Your task to perform on an android device: change your default location settings in chrome Image 0: 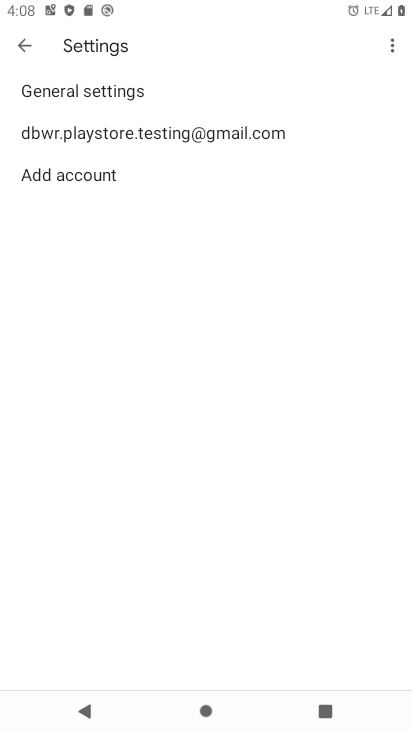
Step 0: press home button
Your task to perform on an android device: change your default location settings in chrome Image 1: 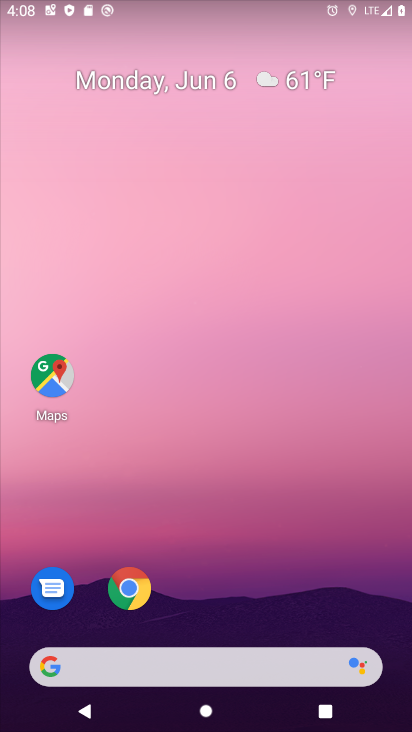
Step 1: click (202, 244)
Your task to perform on an android device: change your default location settings in chrome Image 2: 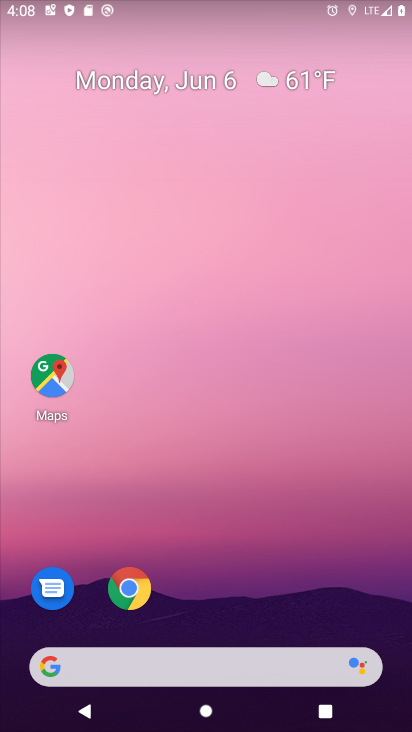
Step 2: click (142, 601)
Your task to perform on an android device: change your default location settings in chrome Image 3: 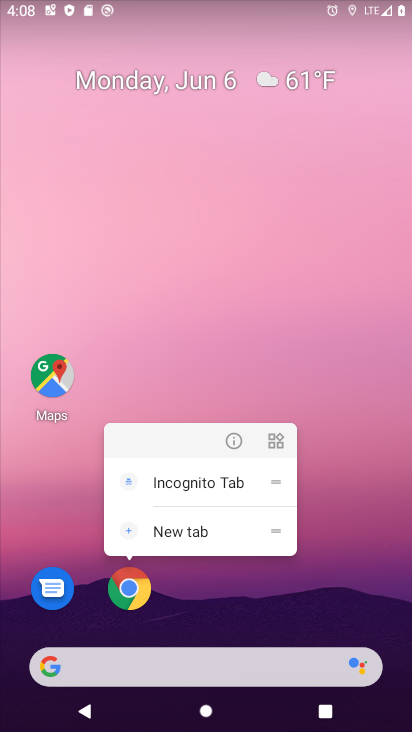
Step 3: click (142, 601)
Your task to perform on an android device: change your default location settings in chrome Image 4: 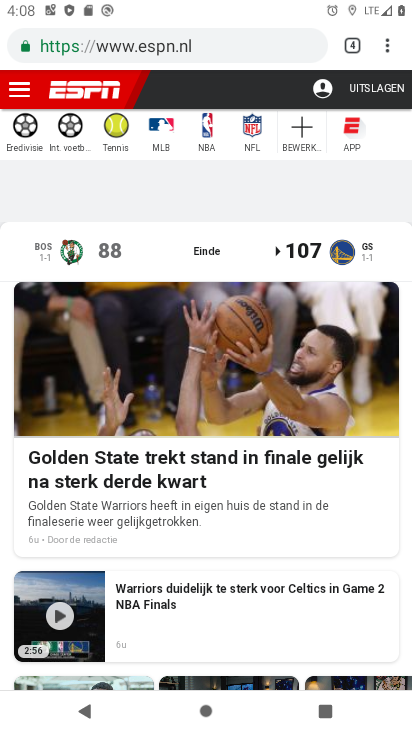
Step 4: click (392, 44)
Your task to perform on an android device: change your default location settings in chrome Image 5: 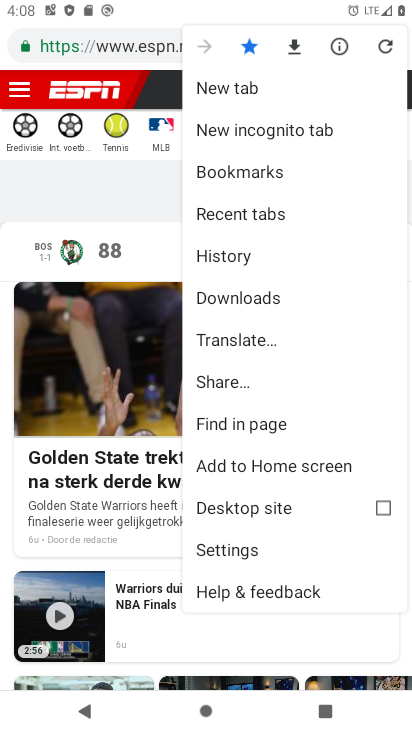
Step 5: click (246, 556)
Your task to perform on an android device: change your default location settings in chrome Image 6: 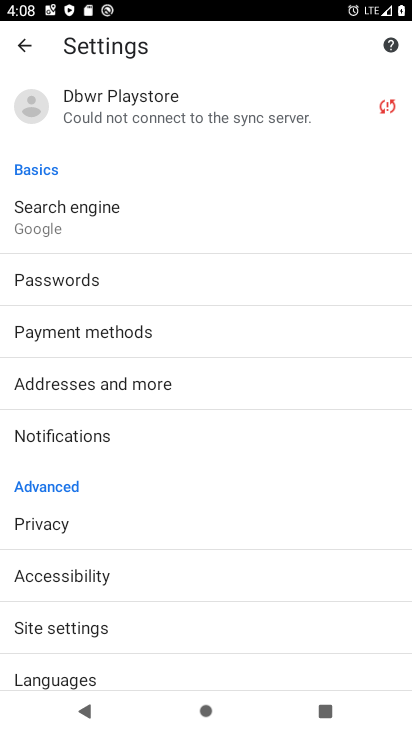
Step 6: click (138, 622)
Your task to perform on an android device: change your default location settings in chrome Image 7: 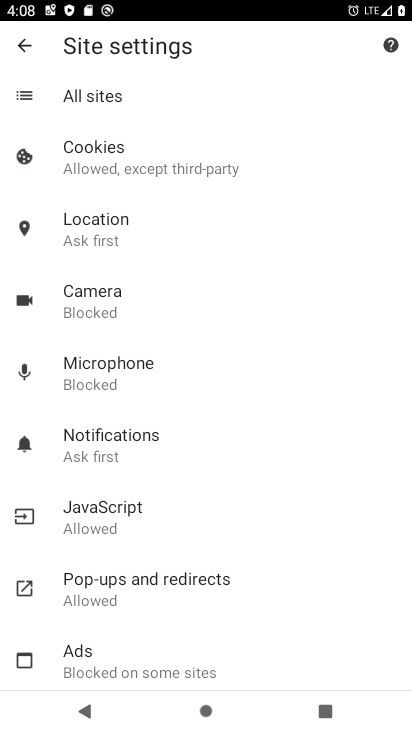
Step 7: click (209, 225)
Your task to perform on an android device: change your default location settings in chrome Image 8: 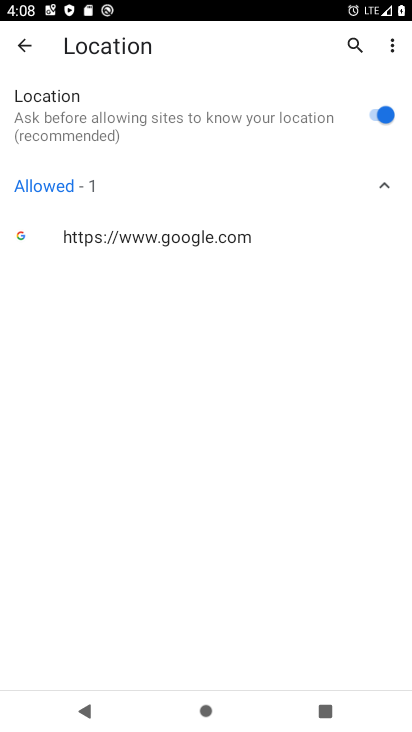
Step 8: task complete